Your task to perform on an android device: delete a single message in the gmail app Image 0: 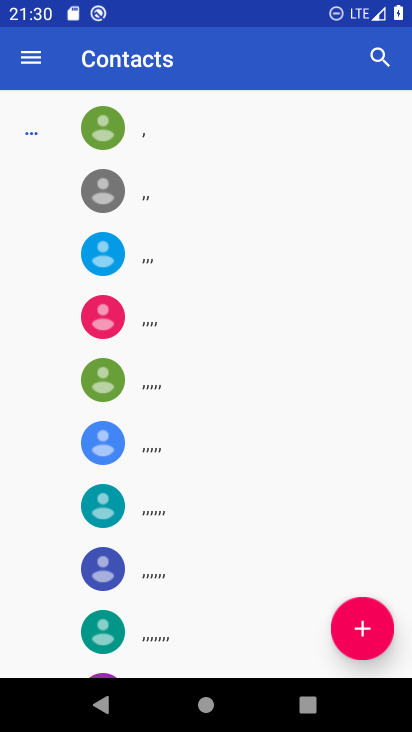
Step 0: press home button
Your task to perform on an android device: delete a single message in the gmail app Image 1: 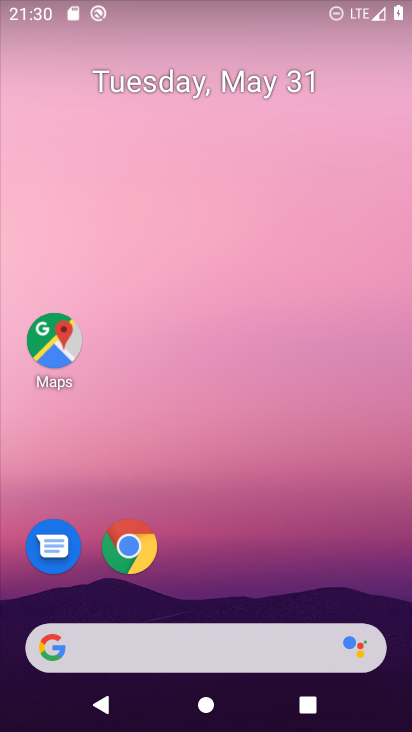
Step 1: drag from (407, 702) to (353, 64)
Your task to perform on an android device: delete a single message in the gmail app Image 2: 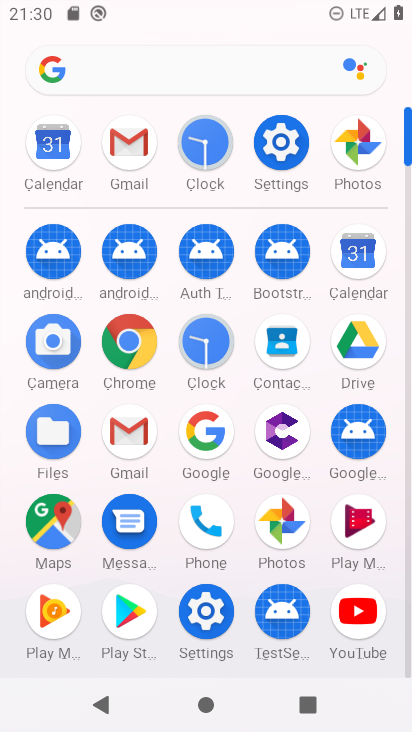
Step 2: click (128, 138)
Your task to perform on an android device: delete a single message in the gmail app Image 3: 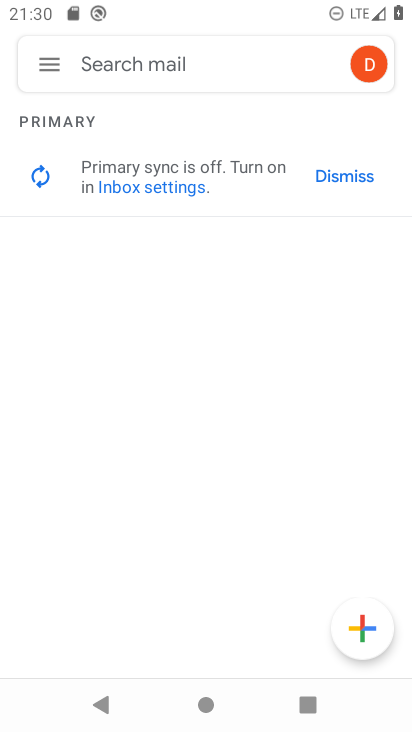
Step 3: click (41, 65)
Your task to perform on an android device: delete a single message in the gmail app Image 4: 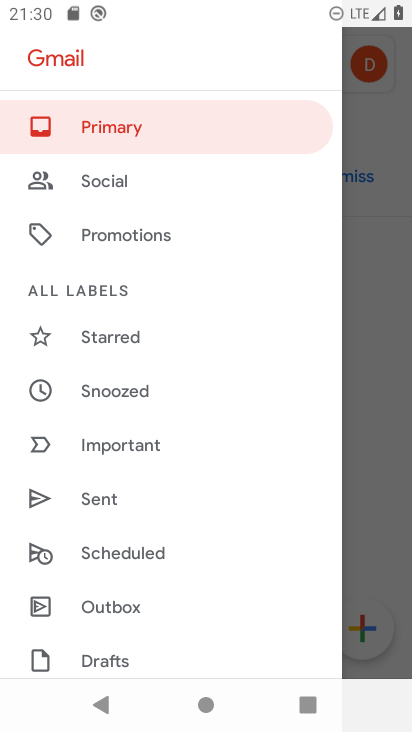
Step 4: drag from (231, 596) to (227, 164)
Your task to perform on an android device: delete a single message in the gmail app Image 5: 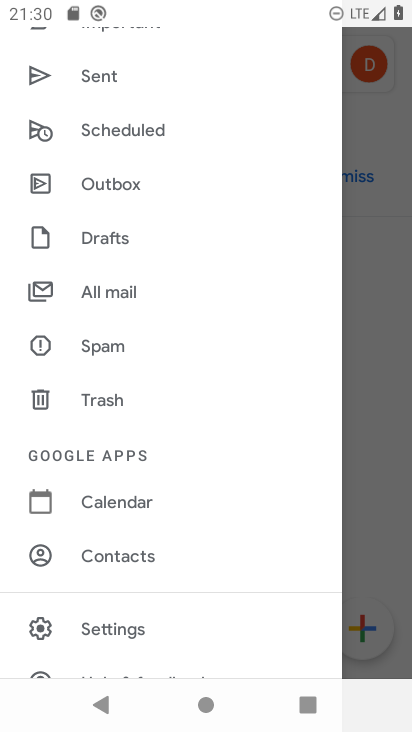
Step 5: click (250, 538)
Your task to perform on an android device: delete a single message in the gmail app Image 6: 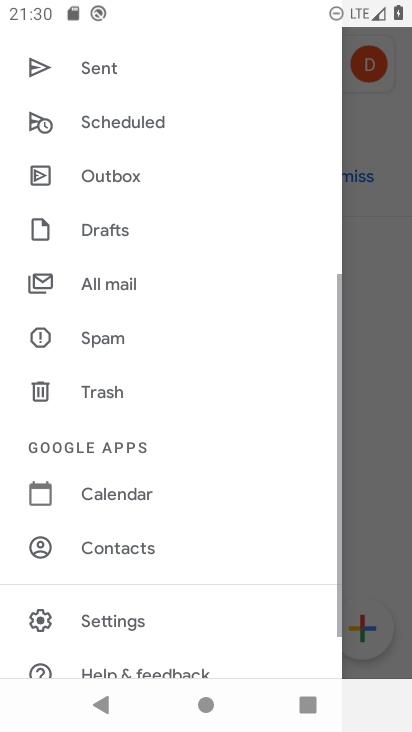
Step 6: drag from (251, 325) to (253, 236)
Your task to perform on an android device: delete a single message in the gmail app Image 7: 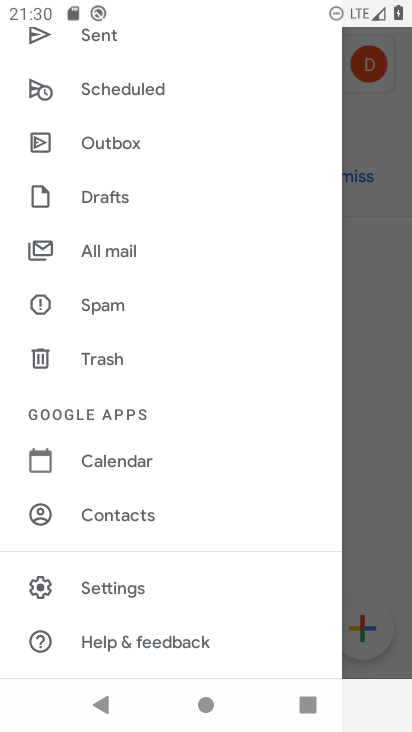
Step 7: drag from (255, 138) to (238, 598)
Your task to perform on an android device: delete a single message in the gmail app Image 8: 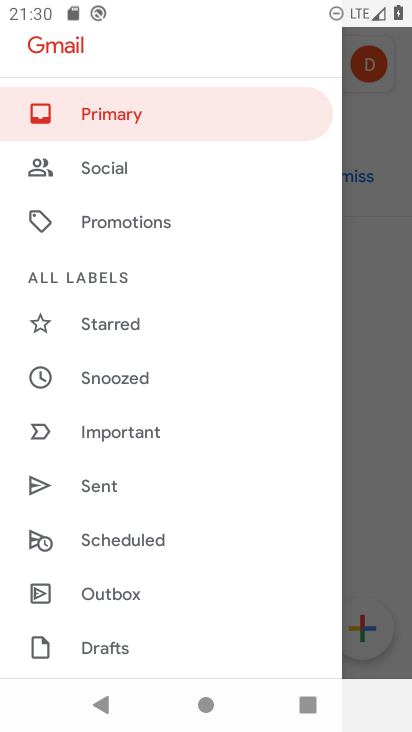
Step 8: click (96, 117)
Your task to perform on an android device: delete a single message in the gmail app Image 9: 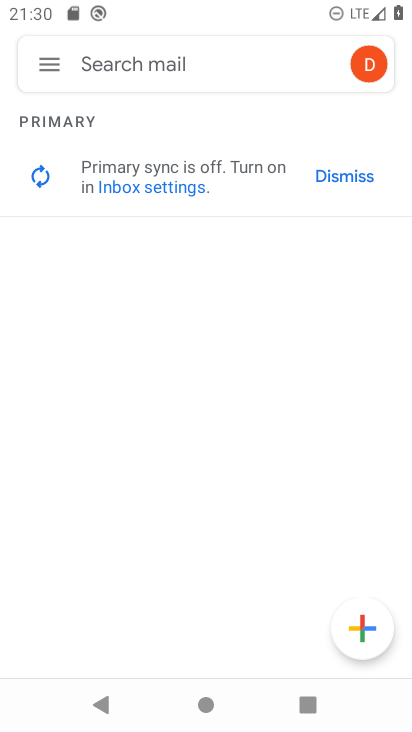
Step 9: task complete